Your task to perform on an android device: Do I have any events tomorrow? Image 0: 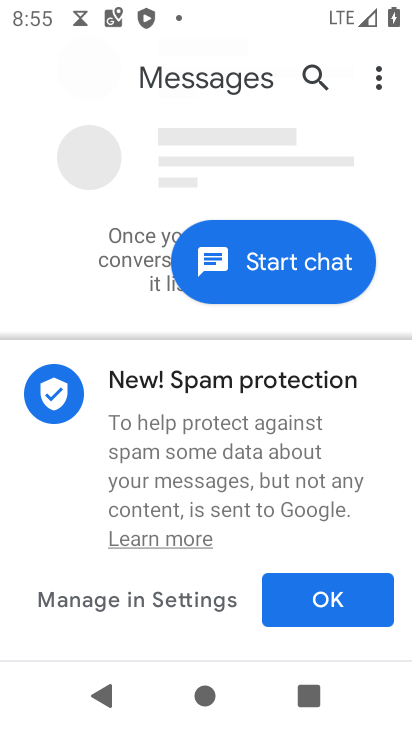
Step 0: press home button
Your task to perform on an android device: Do I have any events tomorrow? Image 1: 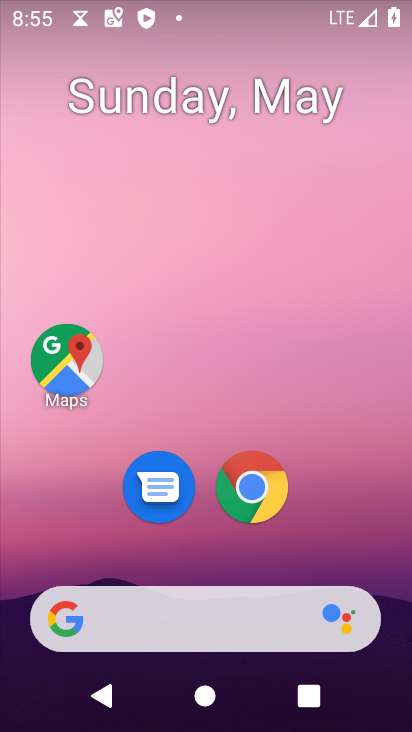
Step 1: drag from (372, 443) to (392, 64)
Your task to perform on an android device: Do I have any events tomorrow? Image 2: 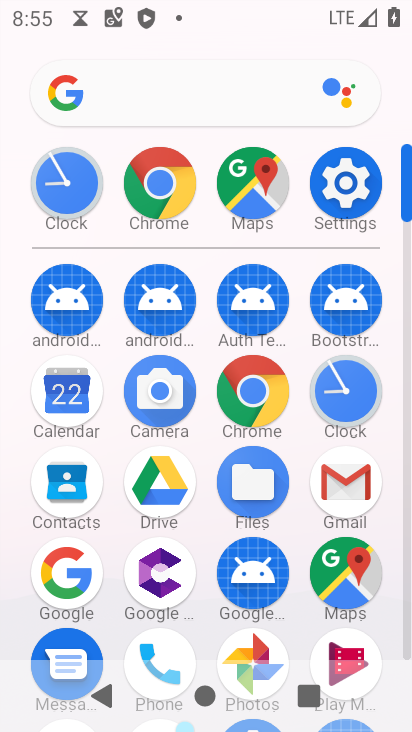
Step 2: click (46, 401)
Your task to perform on an android device: Do I have any events tomorrow? Image 3: 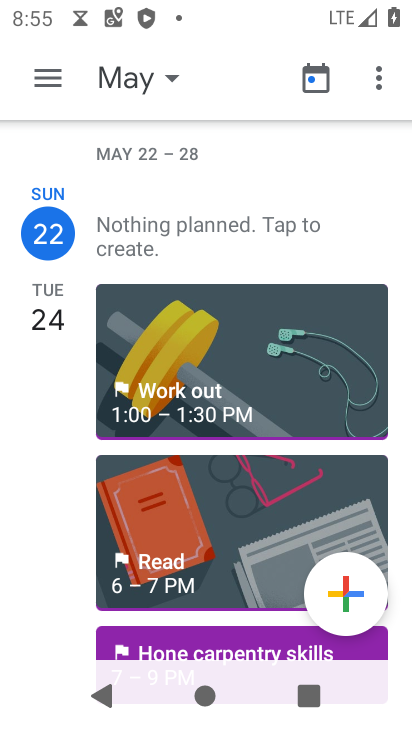
Step 3: click (149, 75)
Your task to perform on an android device: Do I have any events tomorrow? Image 4: 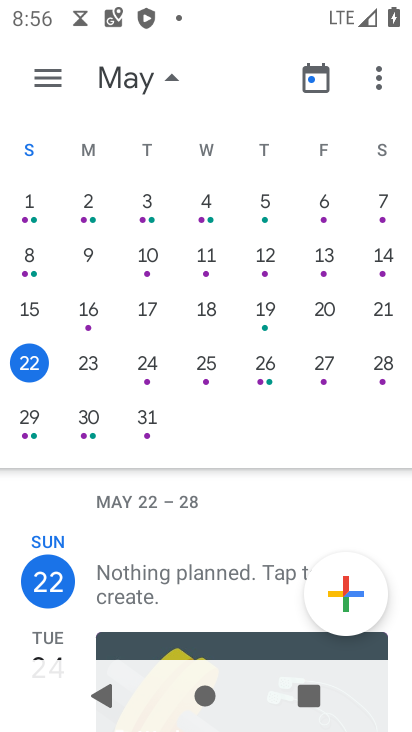
Step 4: click (79, 372)
Your task to perform on an android device: Do I have any events tomorrow? Image 5: 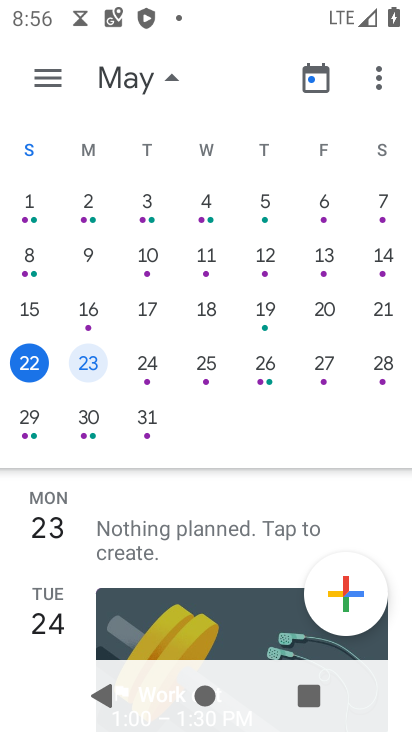
Step 5: task complete